Your task to perform on an android device: Go to Yahoo.com Image 0: 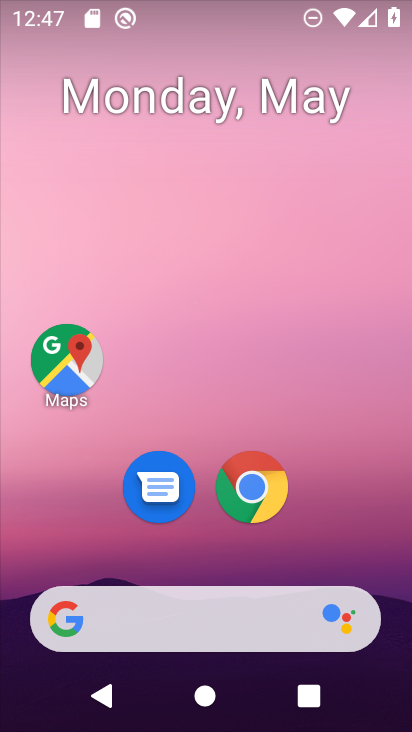
Step 0: click (255, 488)
Your task to perform on an android device: Go to Yahoo.com Image 1: 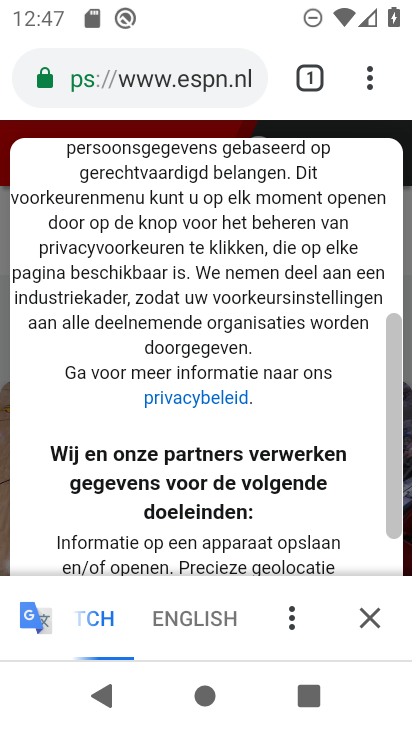
Step 1: click (218, 77)
Your task to perform on an android device: Go to Yahoo.com Image 2: 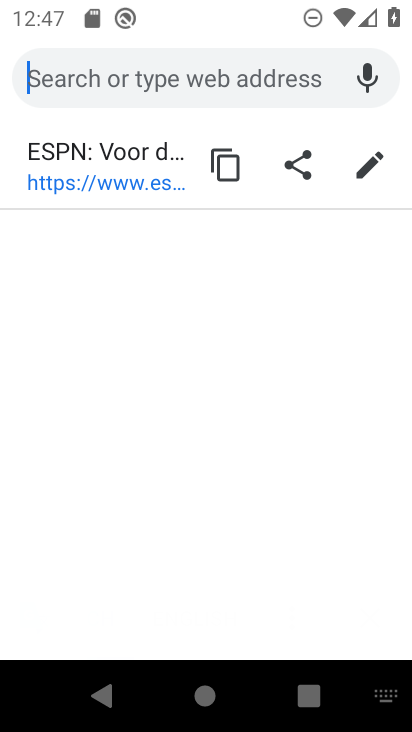
Step 2: type "Yahoo.com"
Your task to perform on an android device: Go to Yahoo.com Image 3: 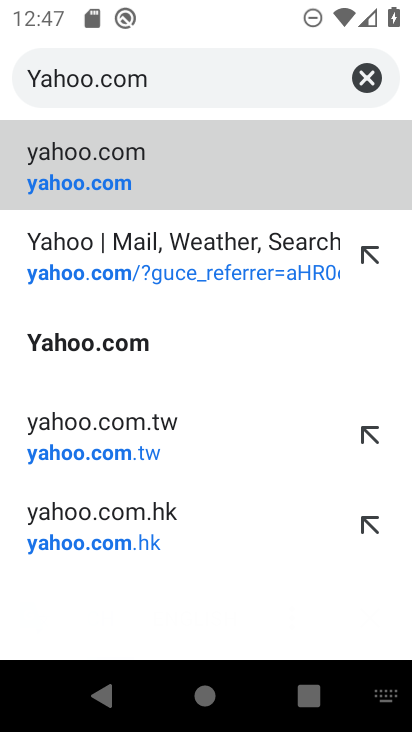
Step 3: click (108, 340)
Your task to perform on an android device: Go to Yahoo.com Image 4: 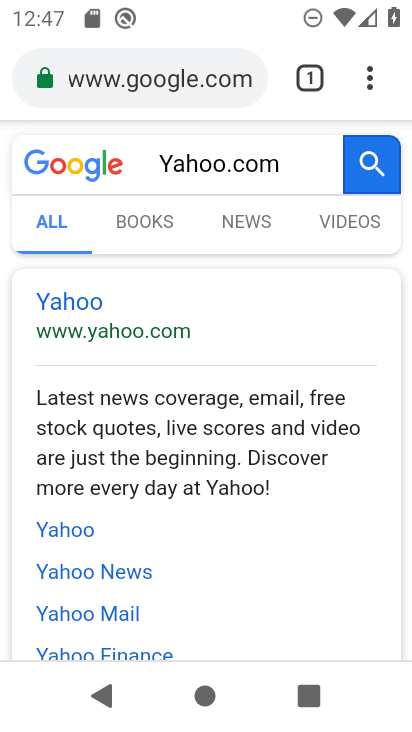
Step 4: click (141, 337)
Your task to perform on an android device: Go to Yahoo.com Image 5: 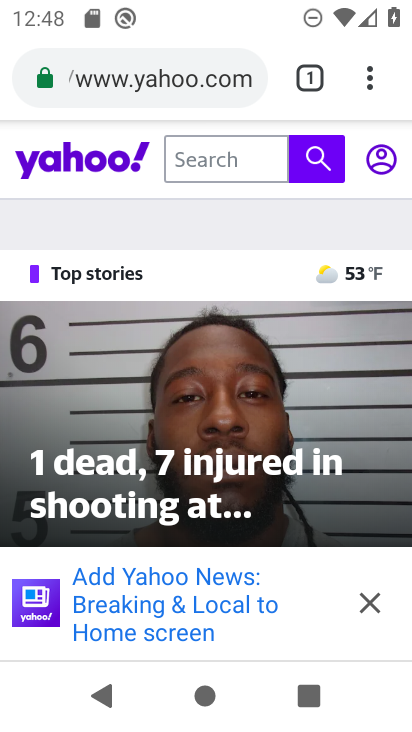
Step 5: task complete